Your task to perform on an android device: Open wifi settings Image 0: 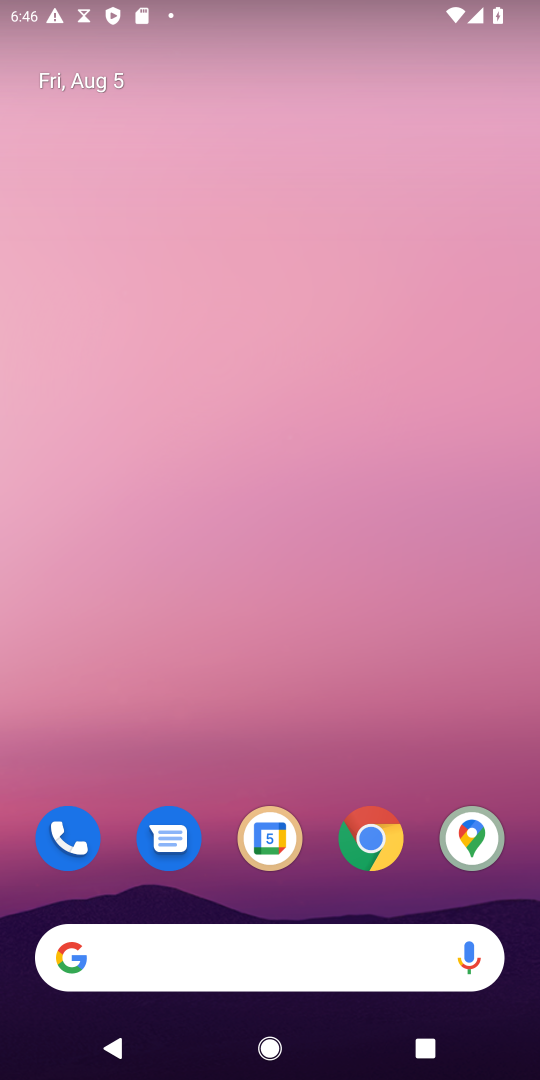
Step 0: press home button
Your task to perform on an android device: Open wifi settings Image 1: 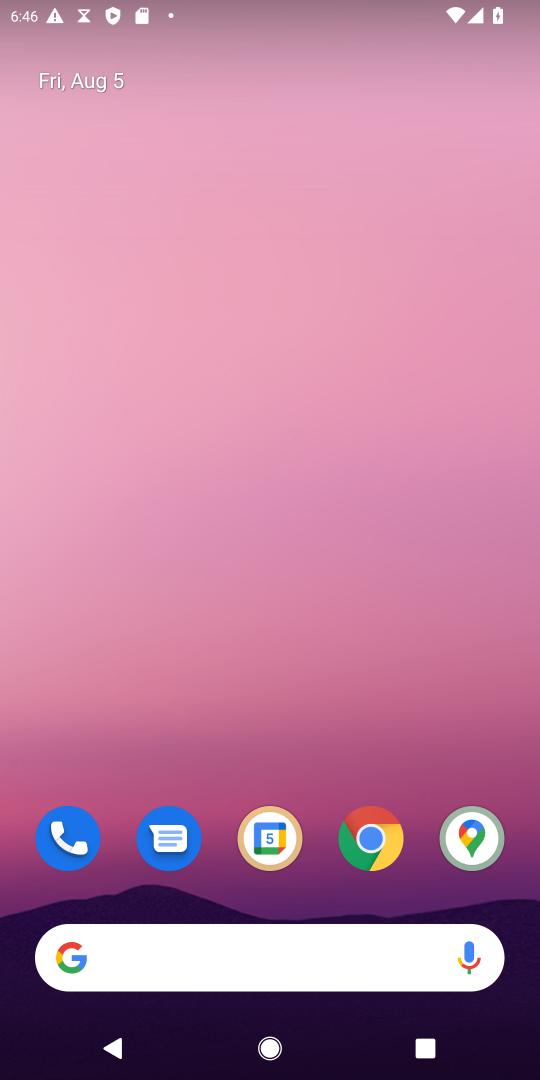
Step 1: drag from (325, 738) to (361, 6)
Your task to perform on an android device: Open wifi settings Image 2: 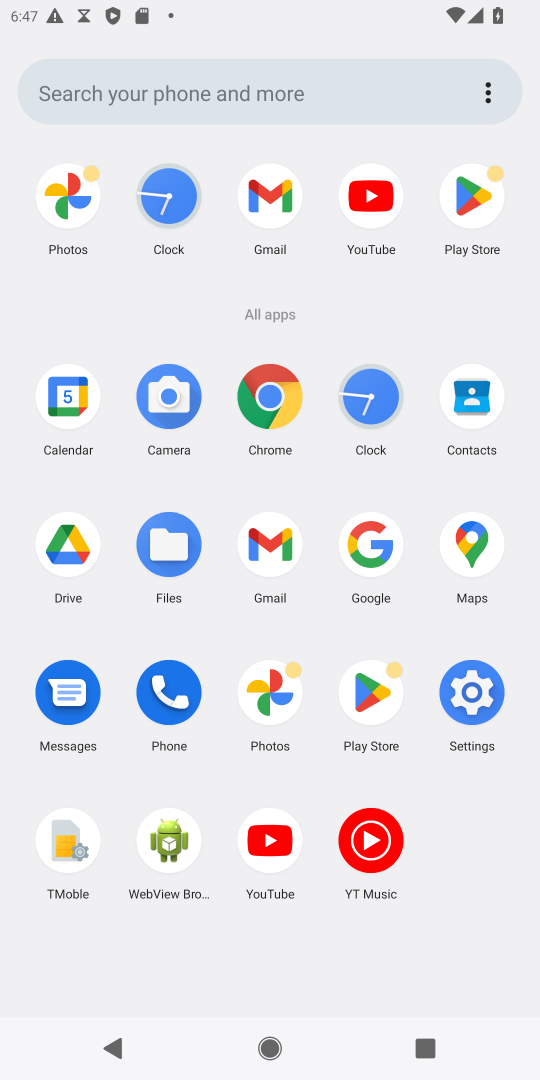
Step 2: click (479, 701)
Your task to perform on an android device: Open wifi settings Image 3: 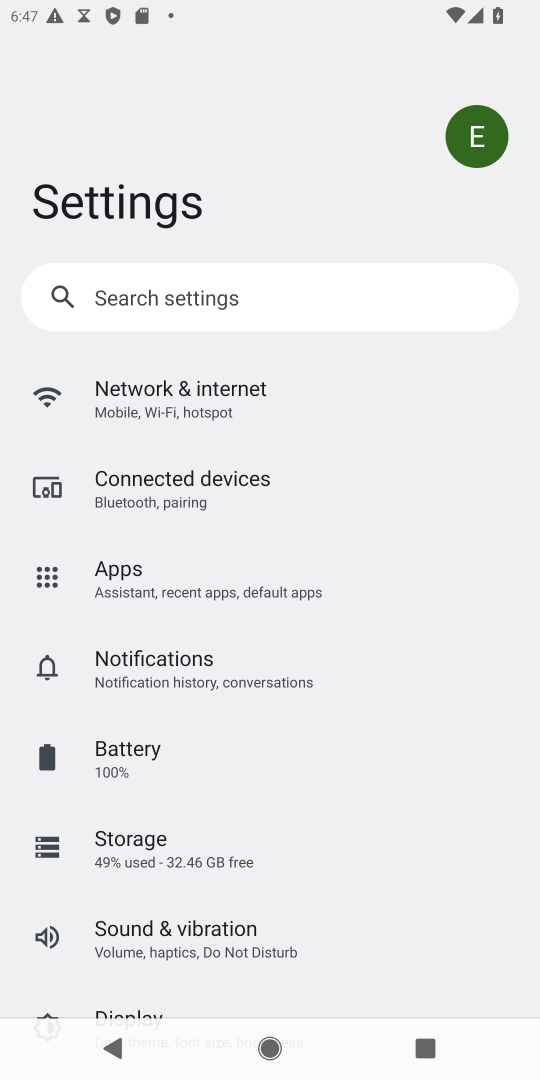
Step 3: click (171, 398)
Your task to perform on an android device: Open wifi settings Image 4: 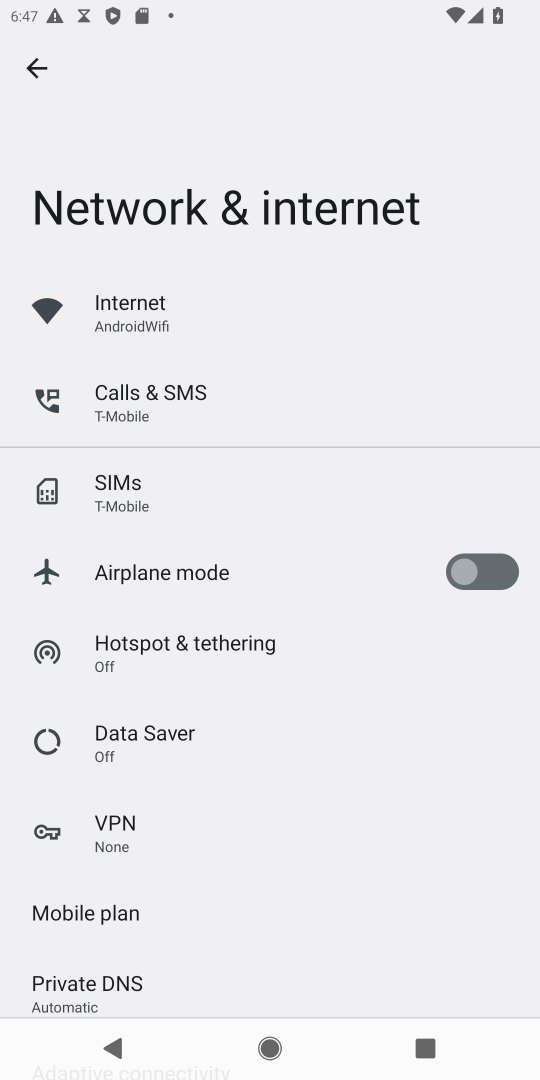
Step 4: click (140, 296)
Your task to perform on an android device: Open wifi settings Image 5: 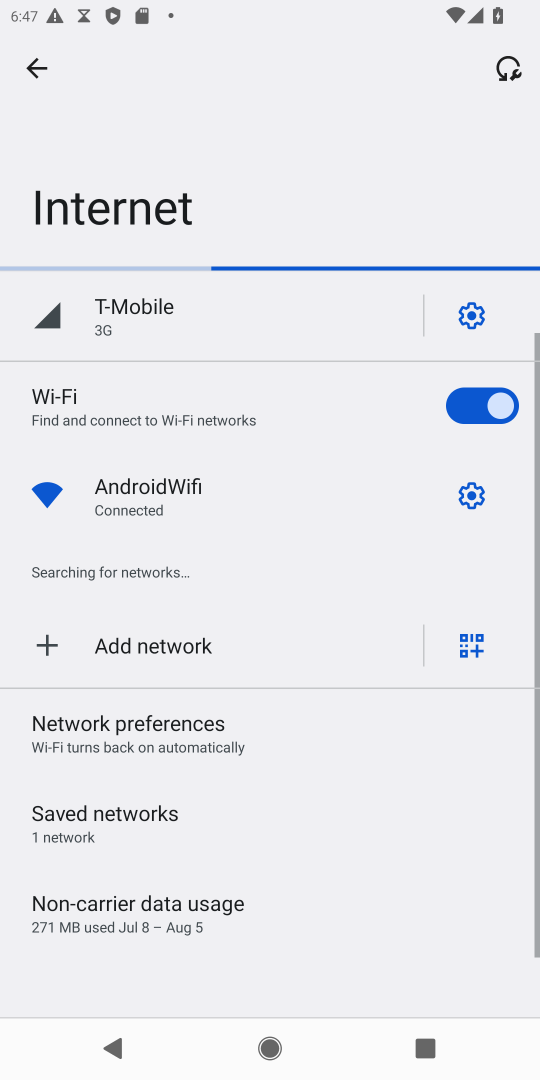
Step 5: task complete